Your task to perform on an android device: Show me productivity apps on the Play Store Image 0: 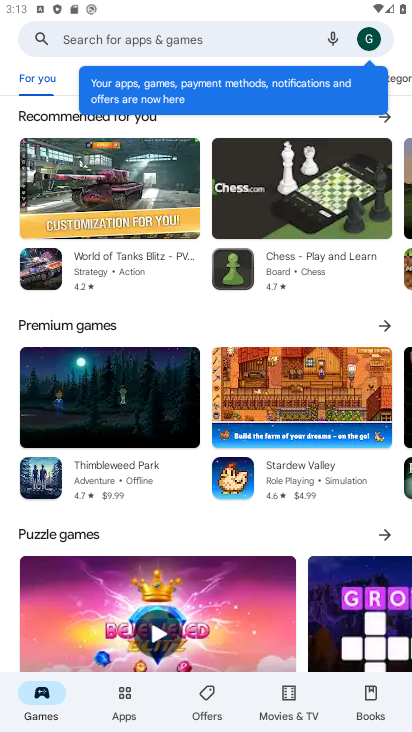
Step 0: click (126, 707)
Your task to perform on an android device: Show me productivity apps on the Play Store Image 1: 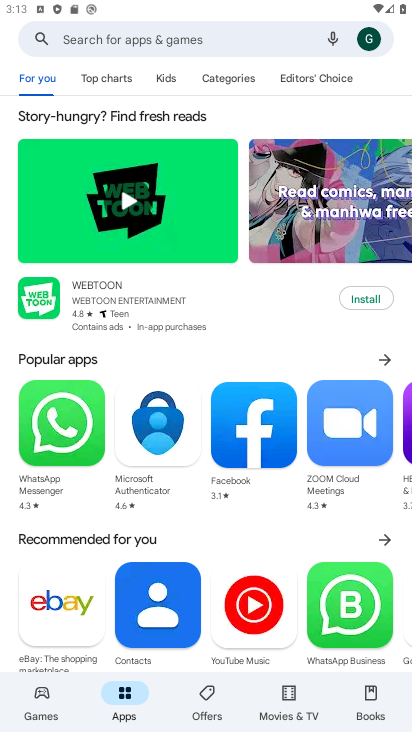
Step 1: click (242, 72)
Your task to perform on an android device: Show me productivity apps on the Play Store Image 2: 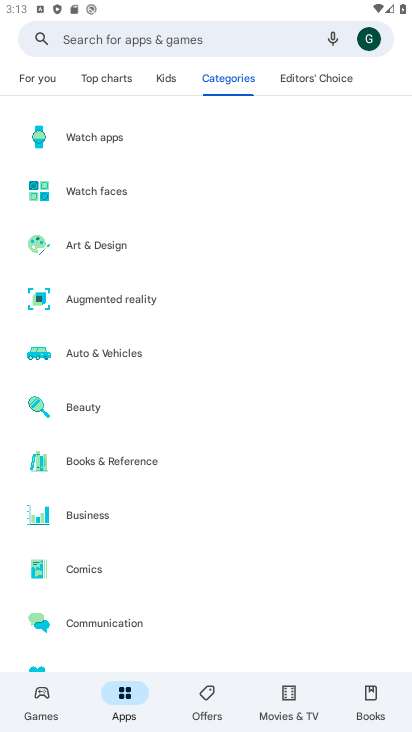
Step 2: drag from (138, 619) to (146, 196)
Your task to perform on an android device: Show me productivity apps on the Play Store Image 3: 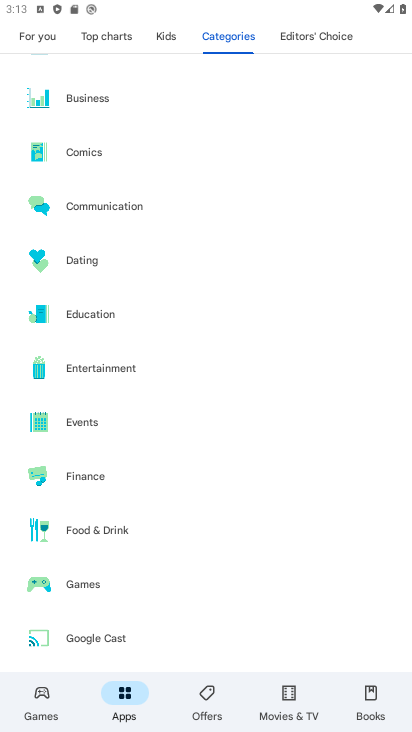
Step 3: drag from (115, 594) to (213, 100)
Your task to perform on an android device: Show me productivity apps on the Play Store Image 4: 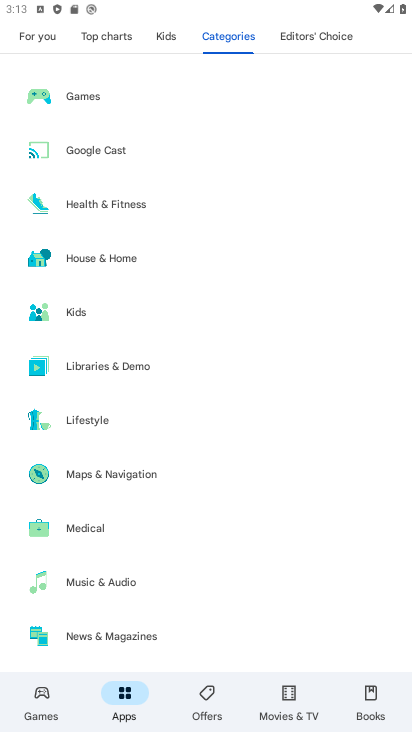
Step 4: drag from (159, 564) to (222, 159)
Your task to perform on an android device: Show me productivity apps on the Play Store Image 5: 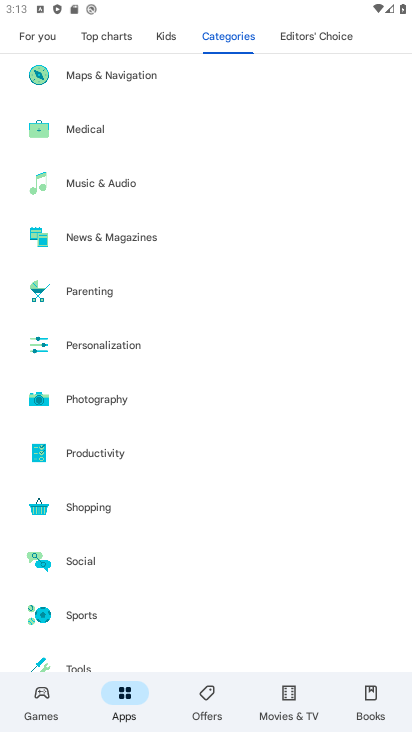
Step 5: click (158, 463)
Your task to perform on an android device: Show me productivity apps on the Play Store Image 6: 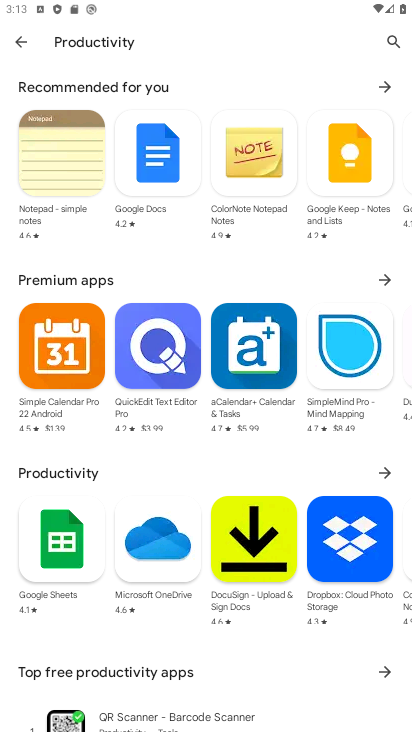
Step 6: task complete